Your task to perform on an android device: Empty the shopping cart on newegg. Add "acer nitro" to the cart on newegg, then select checkout. Image 0: 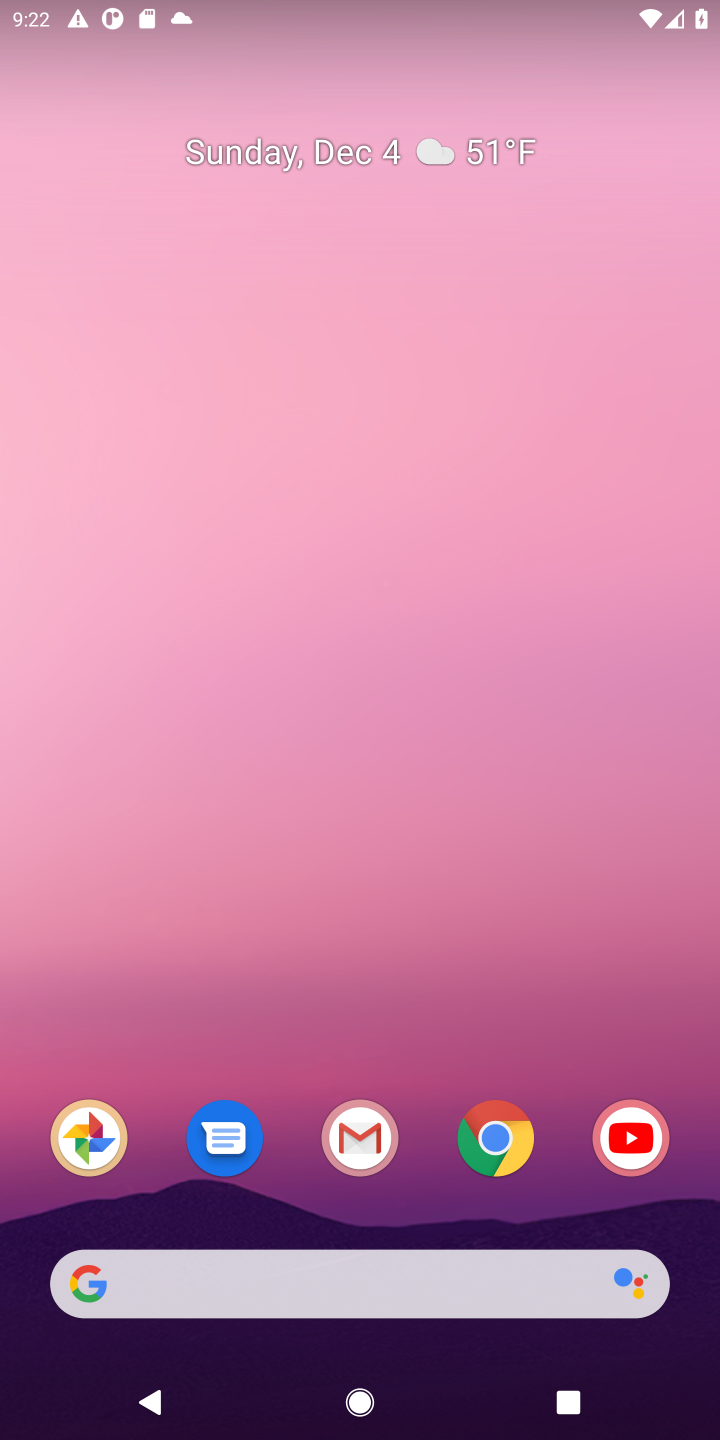
Step 0: click (491, 1136)
Your task to perform on an android device: Empty the shopping cart on newegg. Add "acer nitro" to the cart on newegg, then select checkout. Image 1: 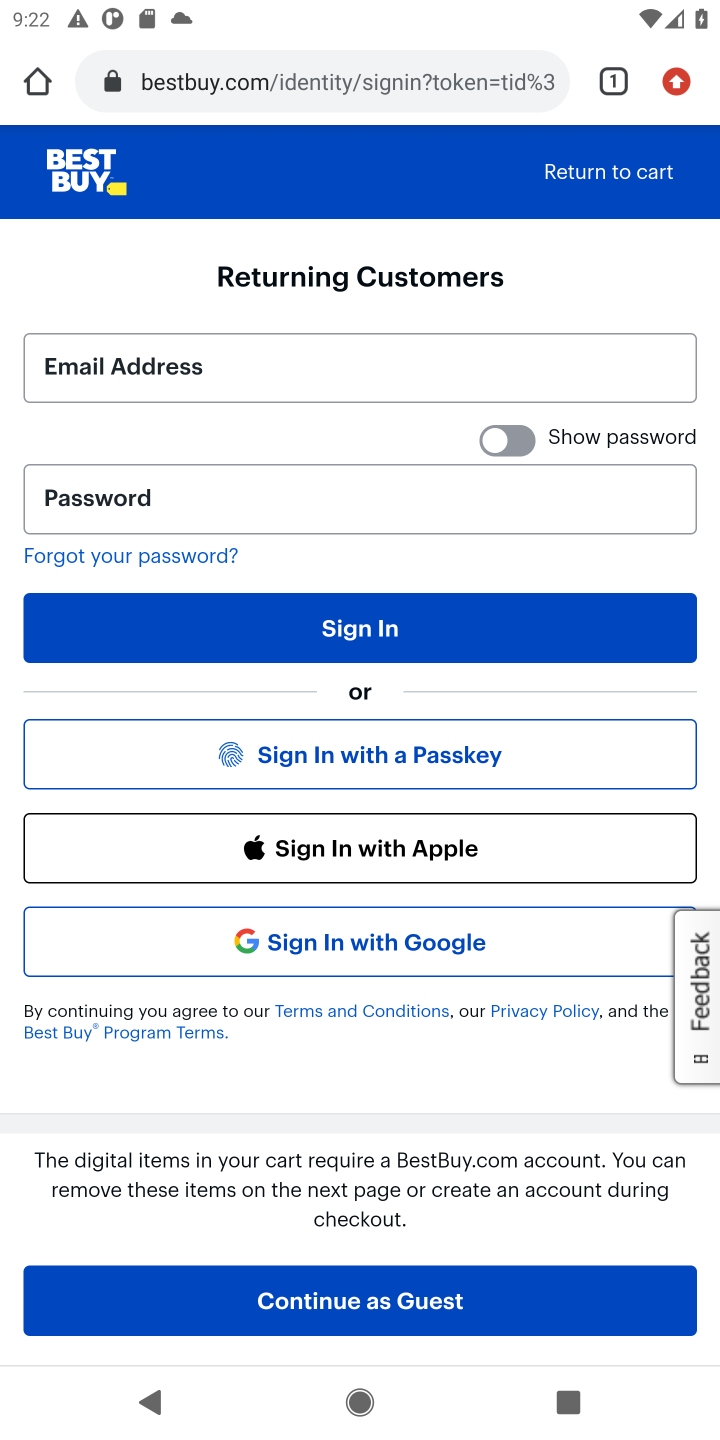
Step 1: click (340, 77)
Your task to perform on an android device: Empty the shopping cart on newegg. Add "acer nitro" to the cart on newegg, then select checkout. Image 2: 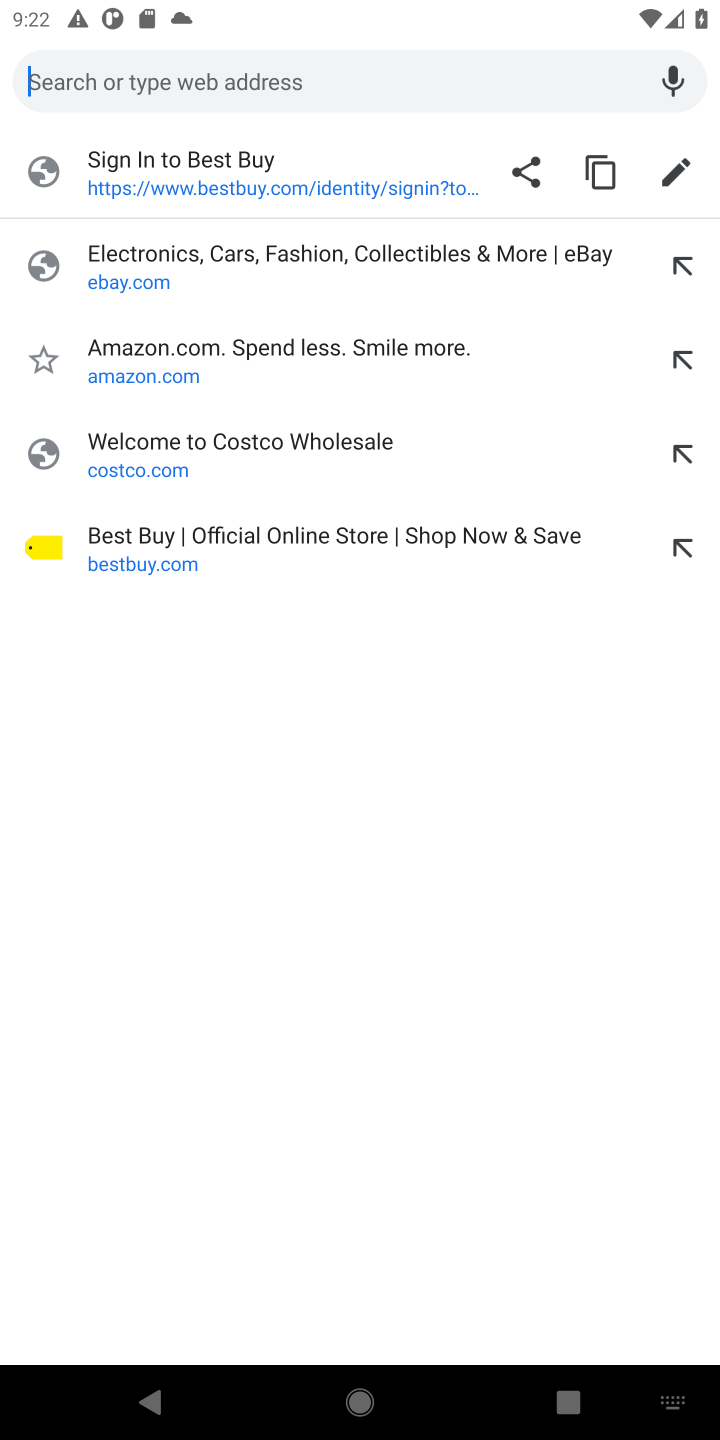
Step 2: press enter
Your task to perform on an android device: Empty the shopping cart on newegg. Add "acer nitro" to the cart on newegg, then select checkout. Image 3: 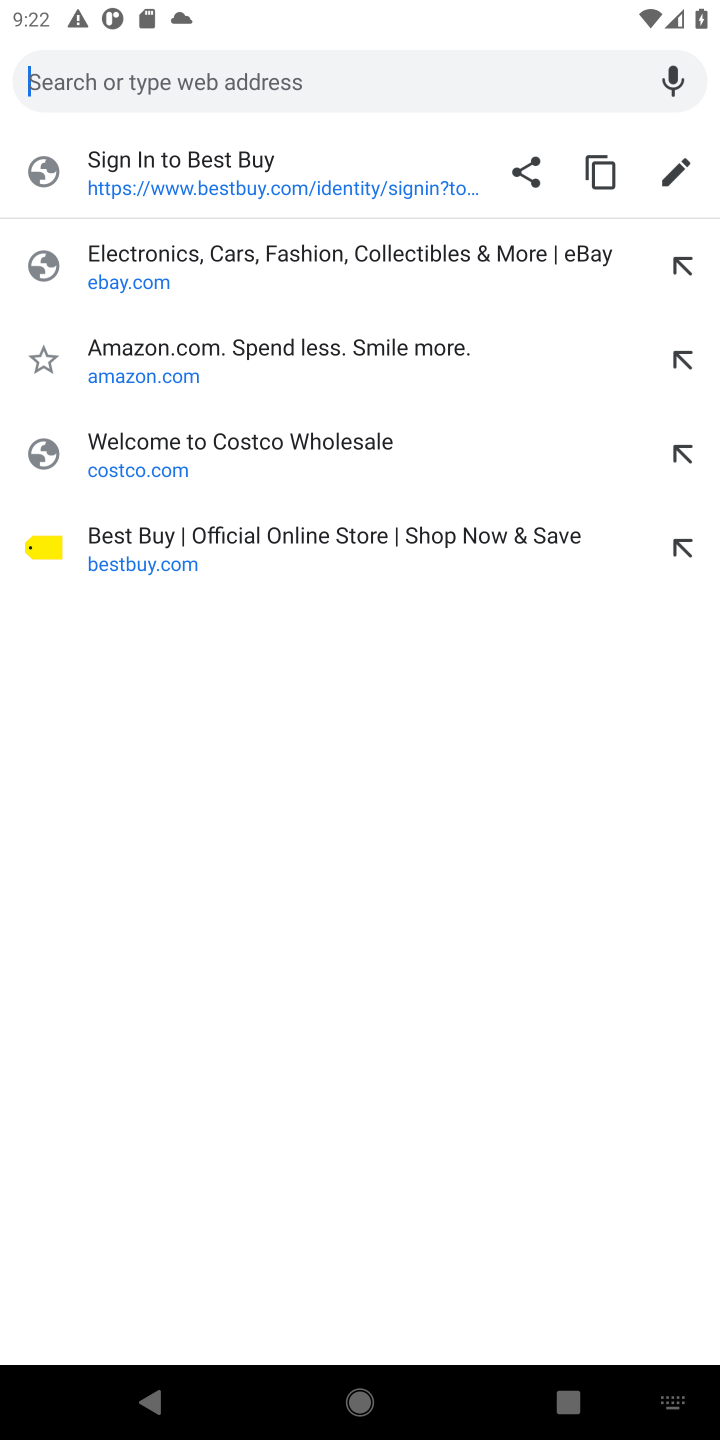
Step 3: type "newegg"
Your task to perform on an android device: Empty the shopping cart on newegg. Add "acer nitro" to the cart on newegg, then select checkout. Image 4: 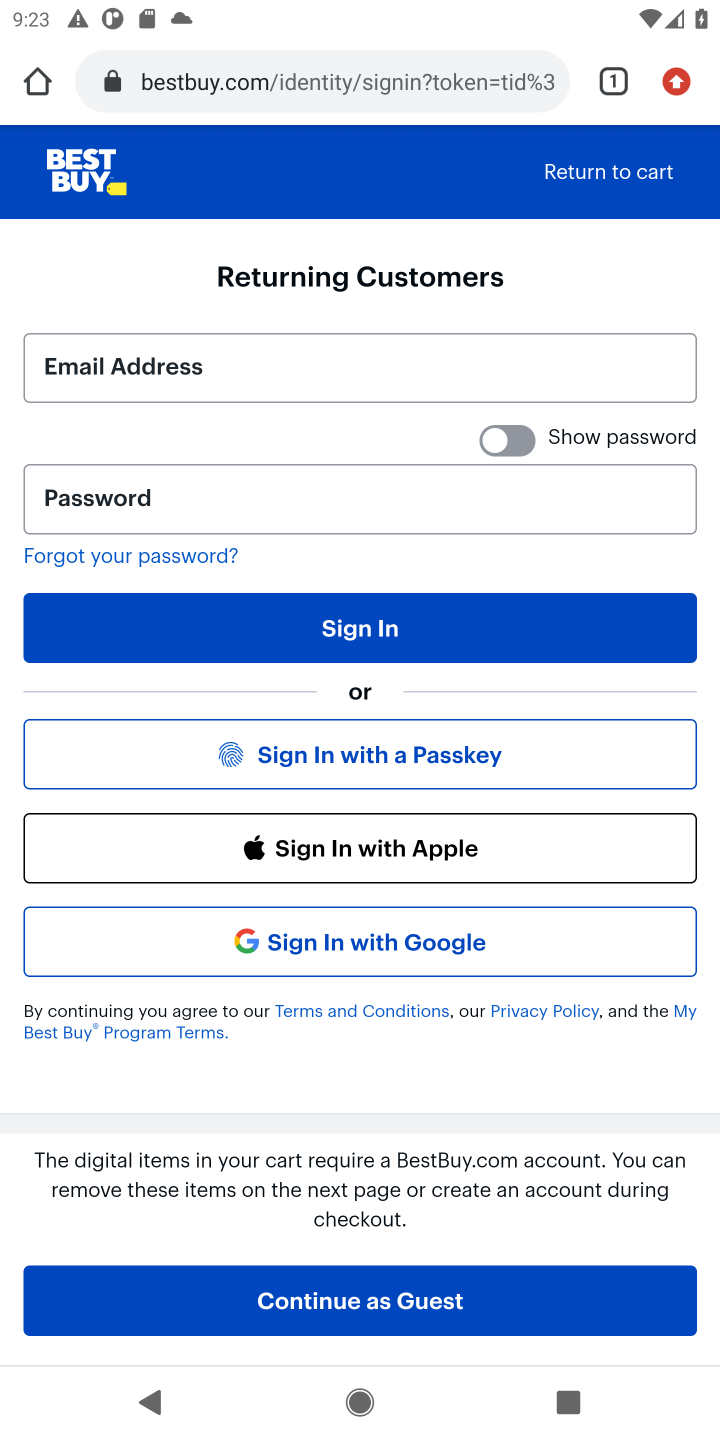
Step 4: click (413, 83)
Your task to perform on an android device: Empty the shopping cart on newegg. Add "acer nitro" to the cart on newegg, then select checkout. Image 5: 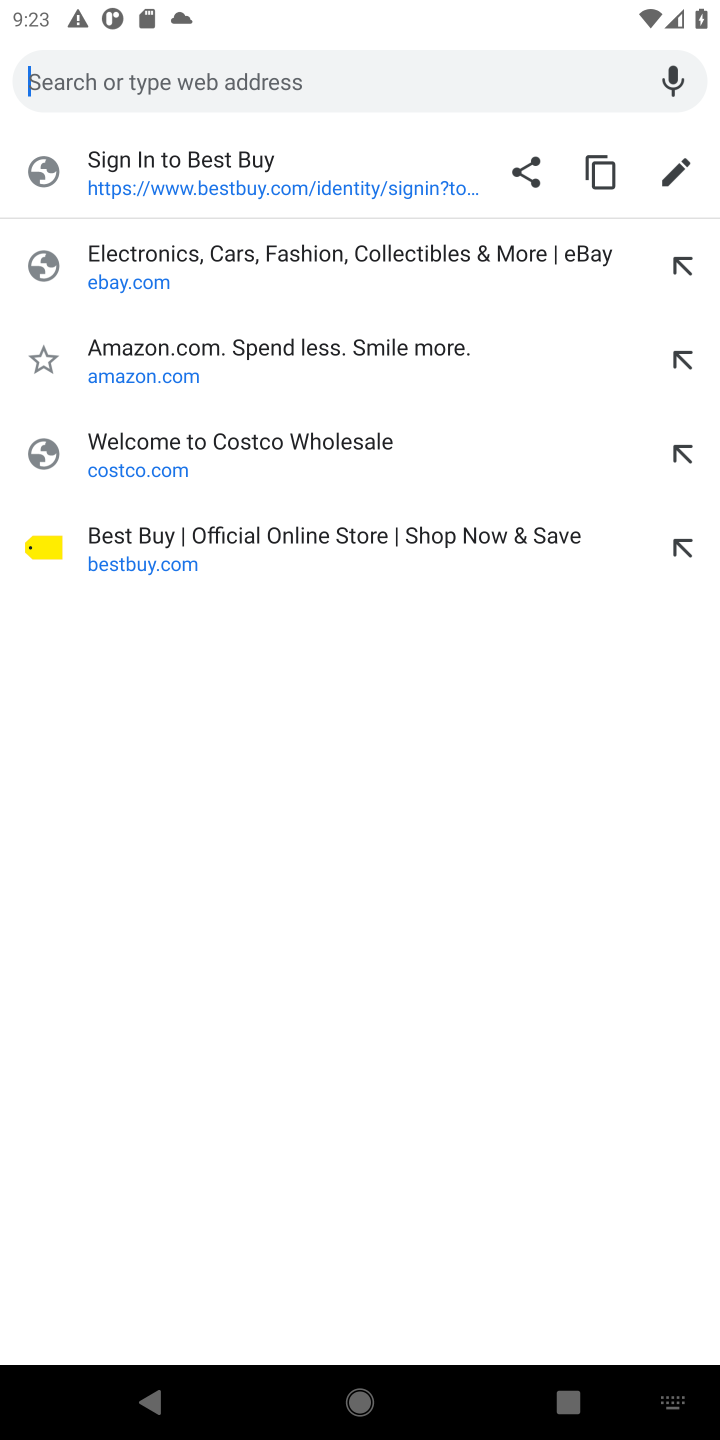
Step 5: type "newegg"
Your task to perform on an android device: Empty the shopping cart on newegg. Add "acer nitro" to the cart on newegg, then select checkout. Image 6: 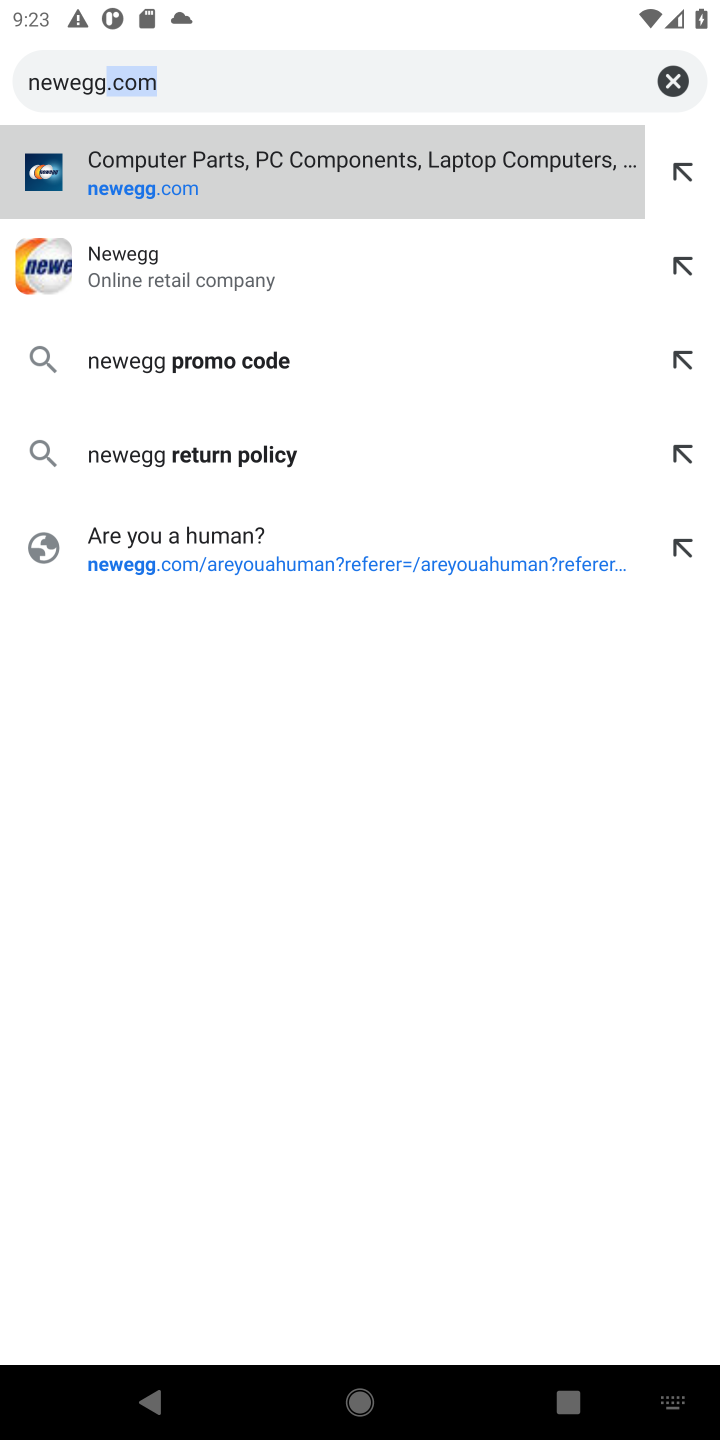
Step 6: press enter
Your task to perform on an android device: Empty the shopping cart on newegg. Add "acer nitro" to the cart on newegg, then select checkout. Image 7: 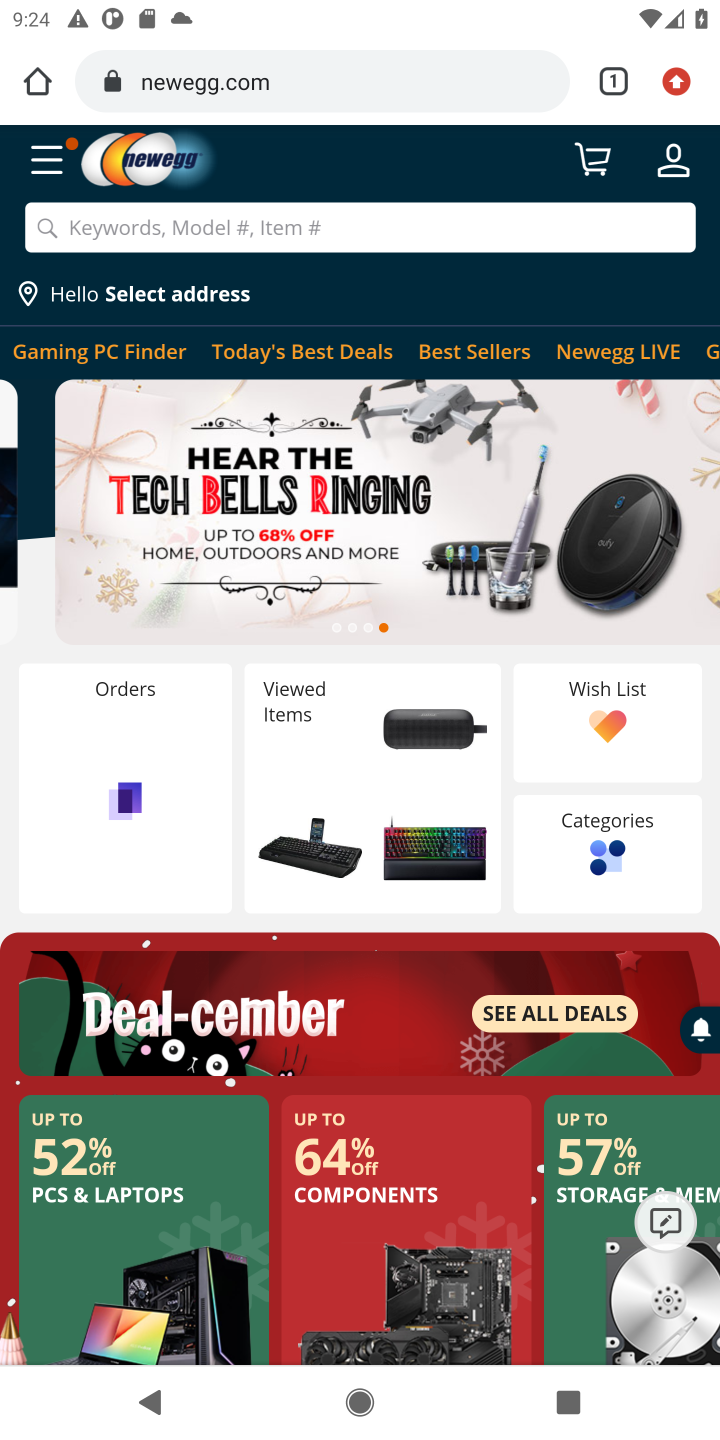
Step 7: click (399, 218)
Your task to perform on an android device: Empty the shopping cart on newegg. Add "acer nitro" to the cart on newegg, then select checkout. Image 8: 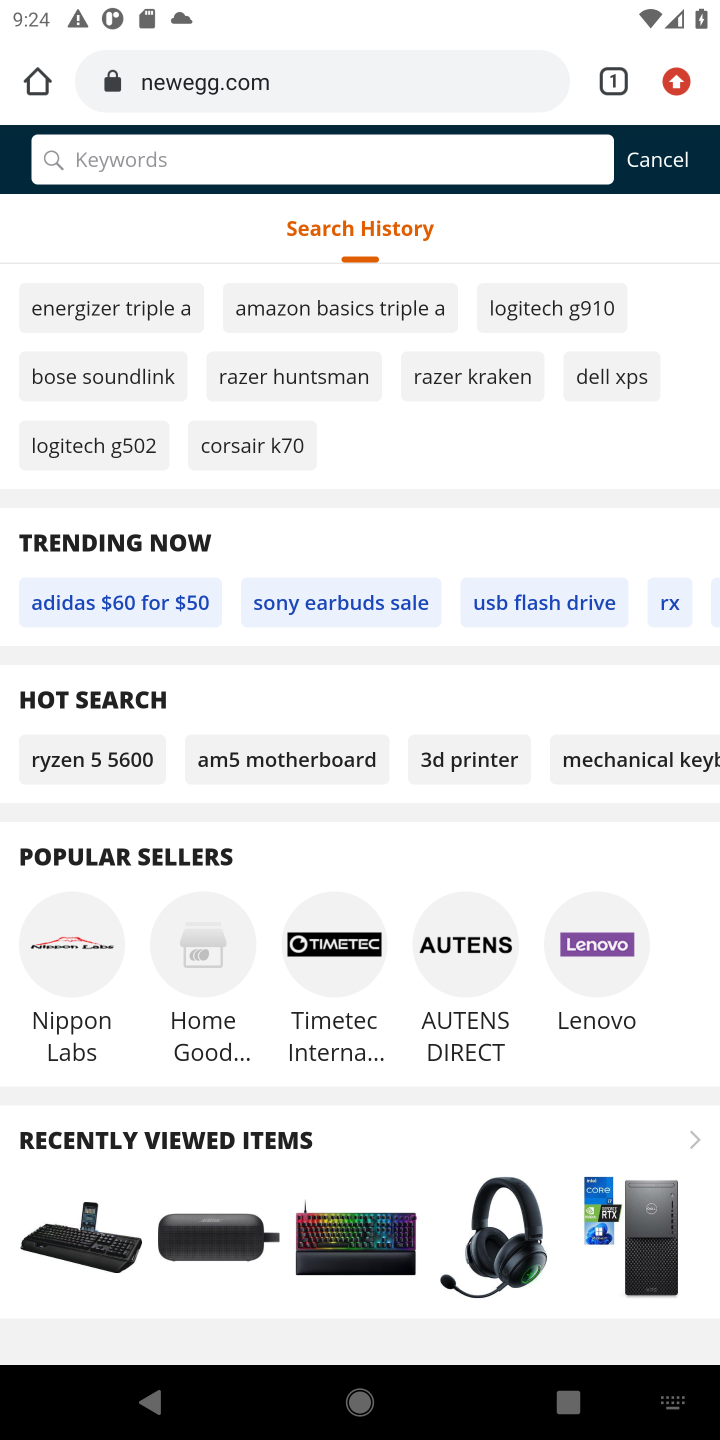
Step 8: type "acer nitro"
Your task to perform on an android device: Empty the shopping cart on newegg. Add "acer nitro" to the cart on newegg, then select checkout. Image 9: 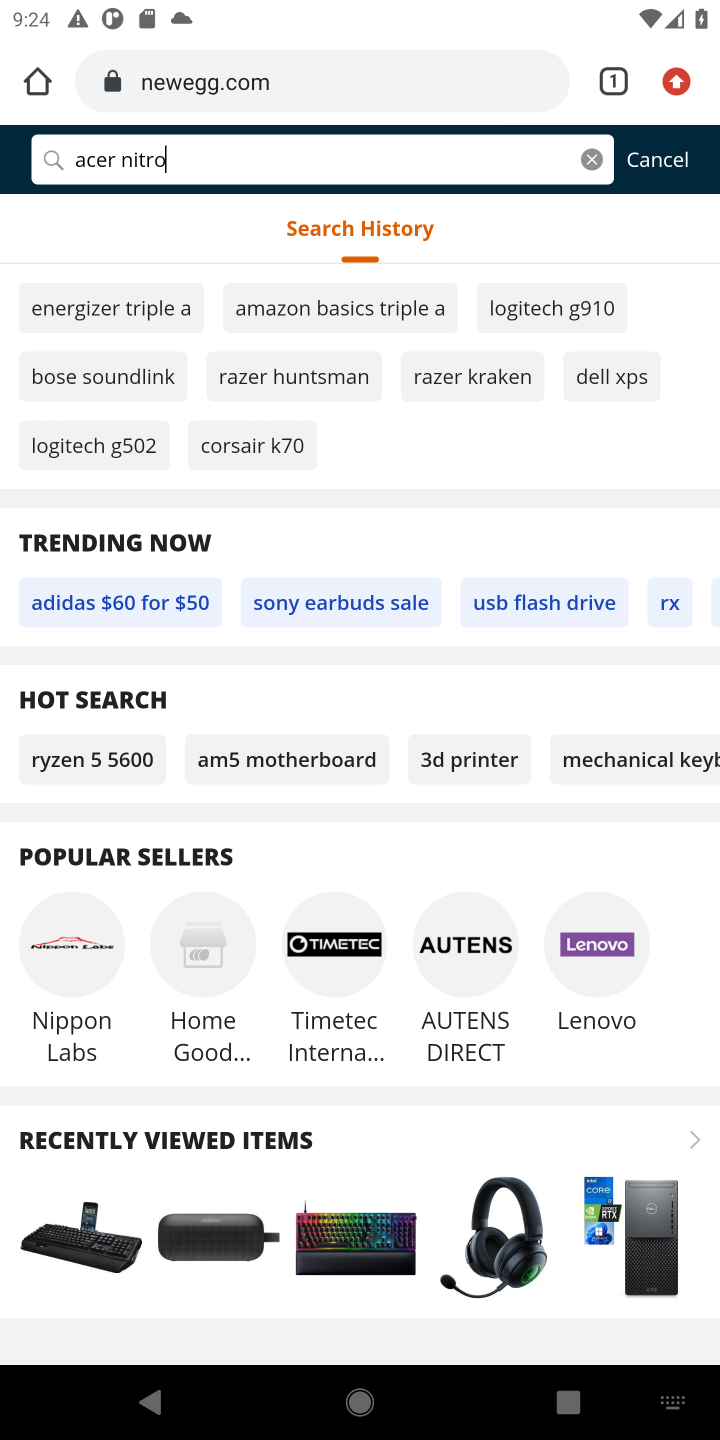
Step 9: press enter
Your task to perform on an android device: Empty the shopping cart on newegg. Add "acer nitro" to the cart on newegg, then select checkout. Image 10: 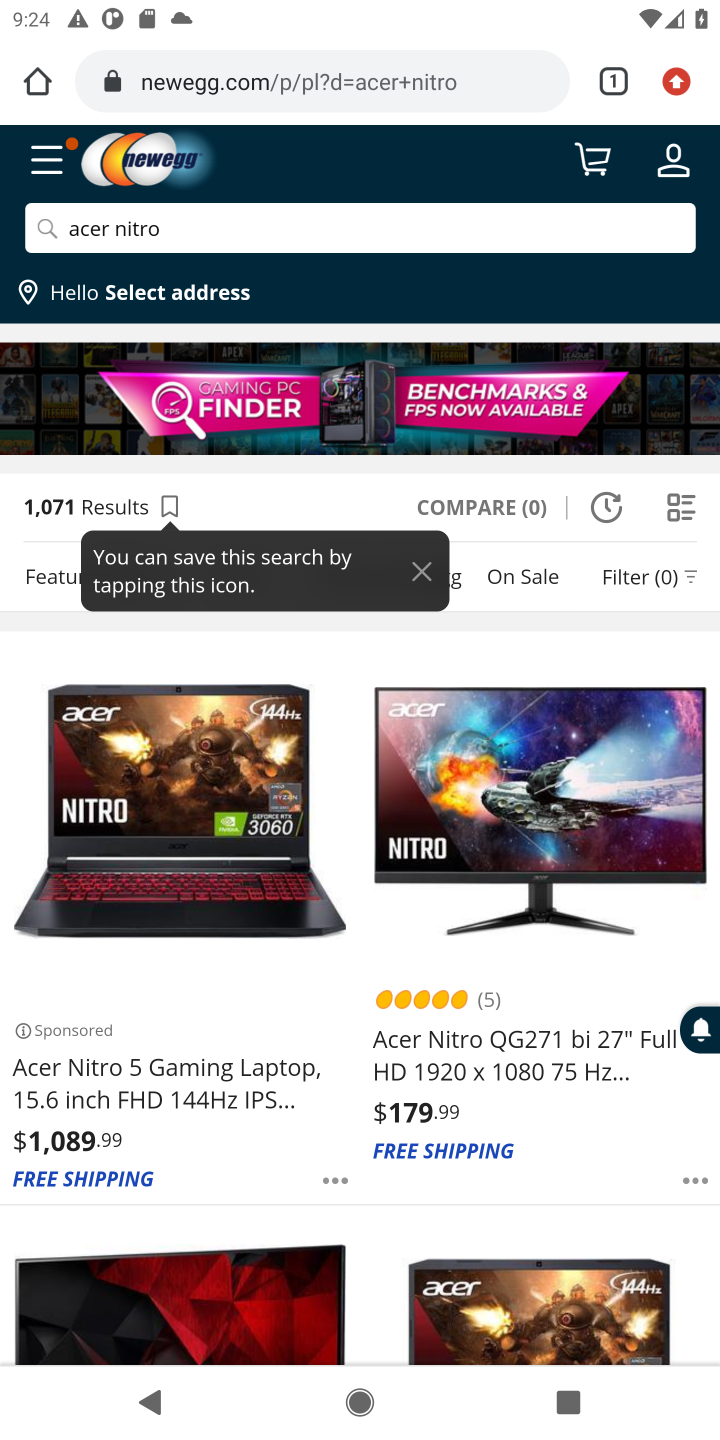
Step 10: click (180, 799)
Your task to perform on an android device: Empty the shopping cart on newegg. Add "acer nitro" to the cart on newegg, then select checkout. Image 11: 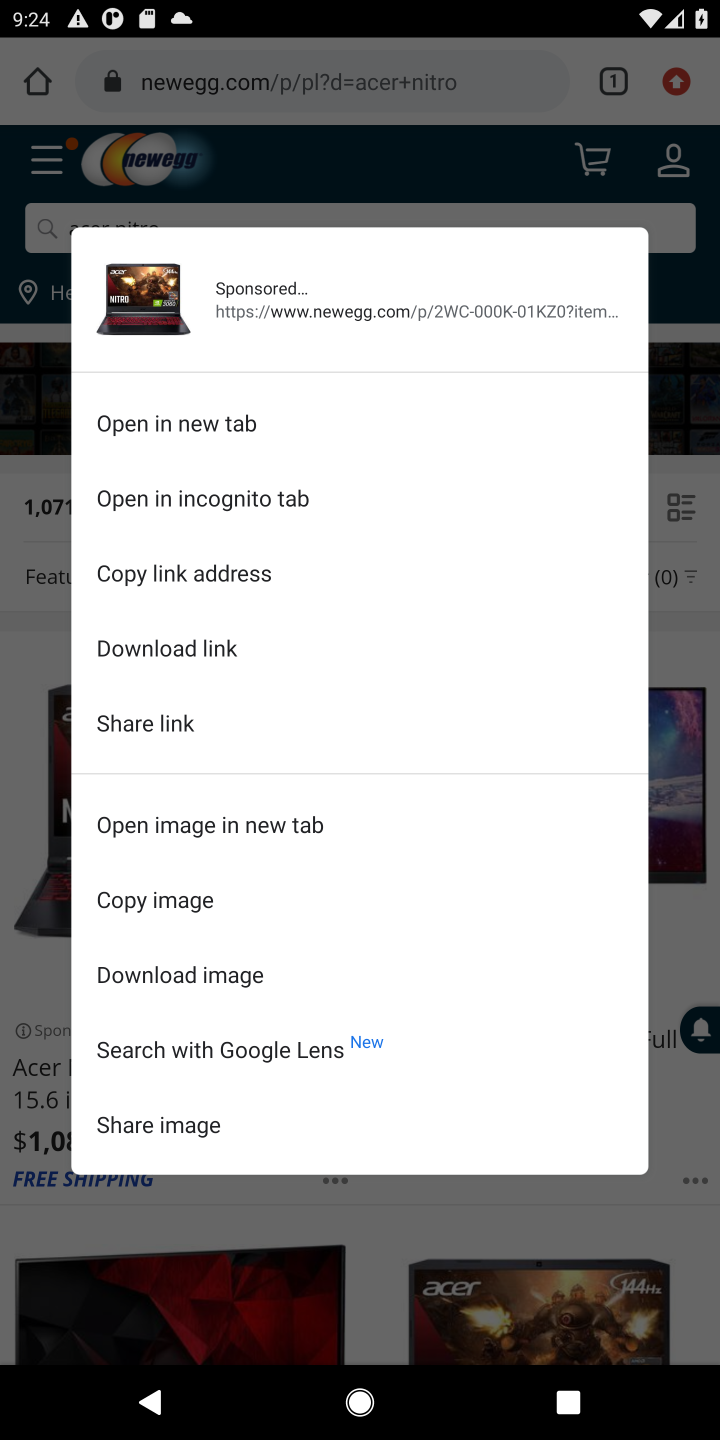
Step 11: click (27, 803)
Your task to perform on an android device: Empty the shopping cart on newegg. Add "acer nitro" to the cart on newegg, then select checkout. Image 12: 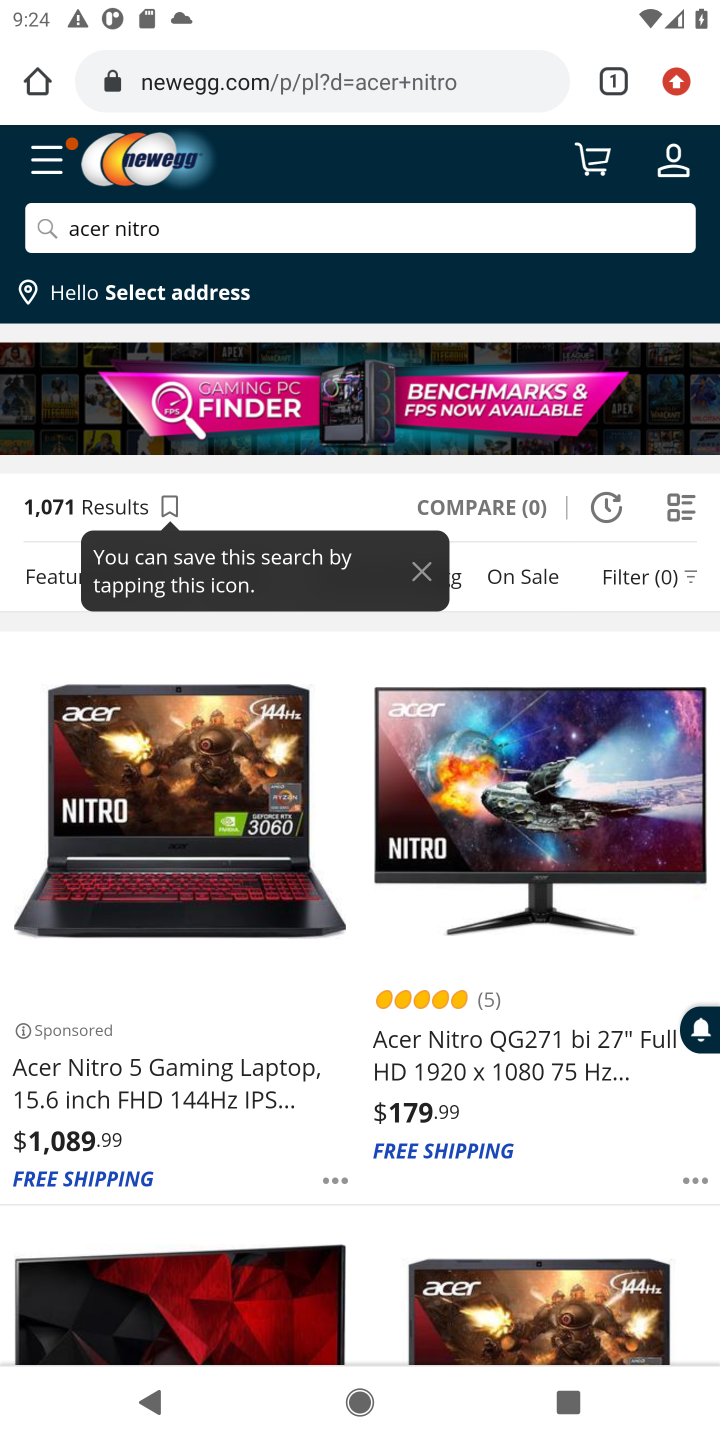
Step 12: click (88, 786)
Your task to perform on an android device: Empty the shopping cart on newegg. Add "acer nitro" to the cart on newegg, then select checkout. Image 13: 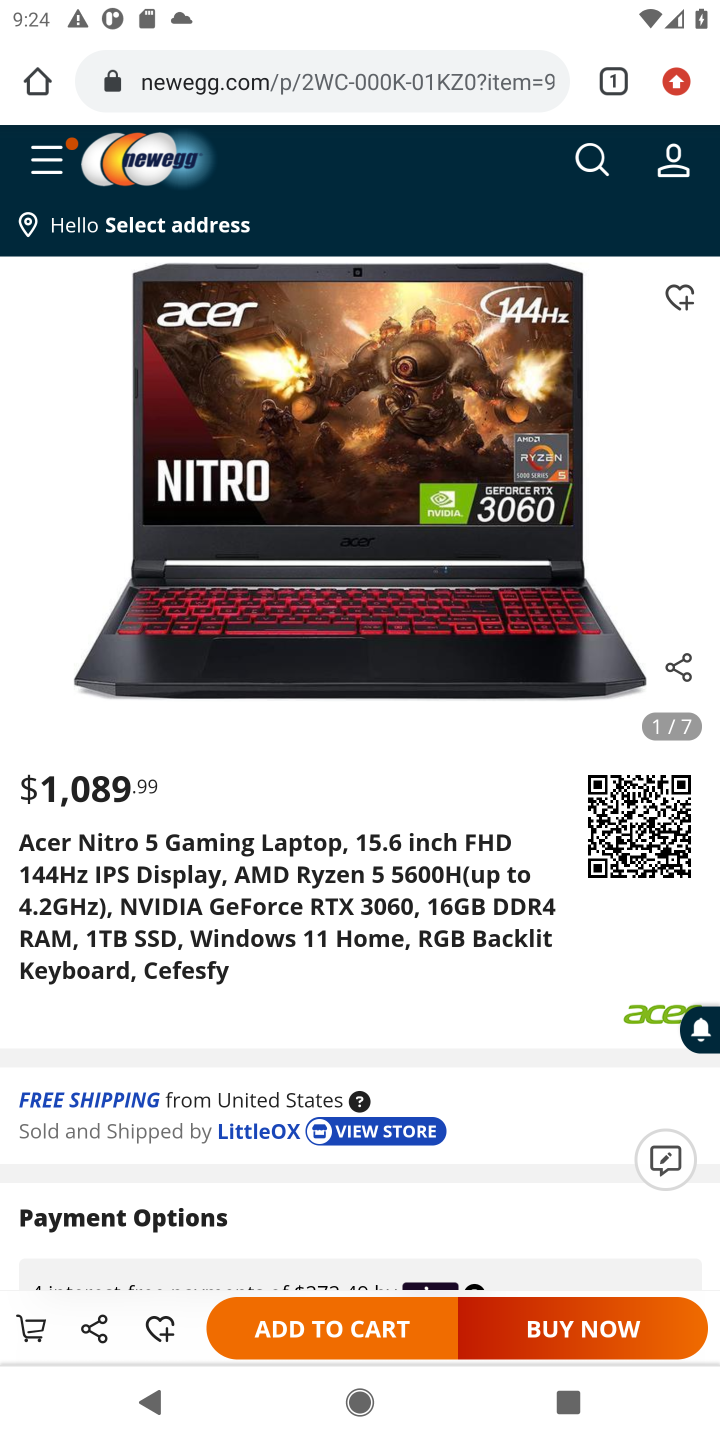
Step 13: drag from (541, 1015) to (517, 388)
Your task to perform on an android device: Empty the shopping cart on newegg. Add "acer nitro" to the cart on newegg, then select checkout. Image 14: 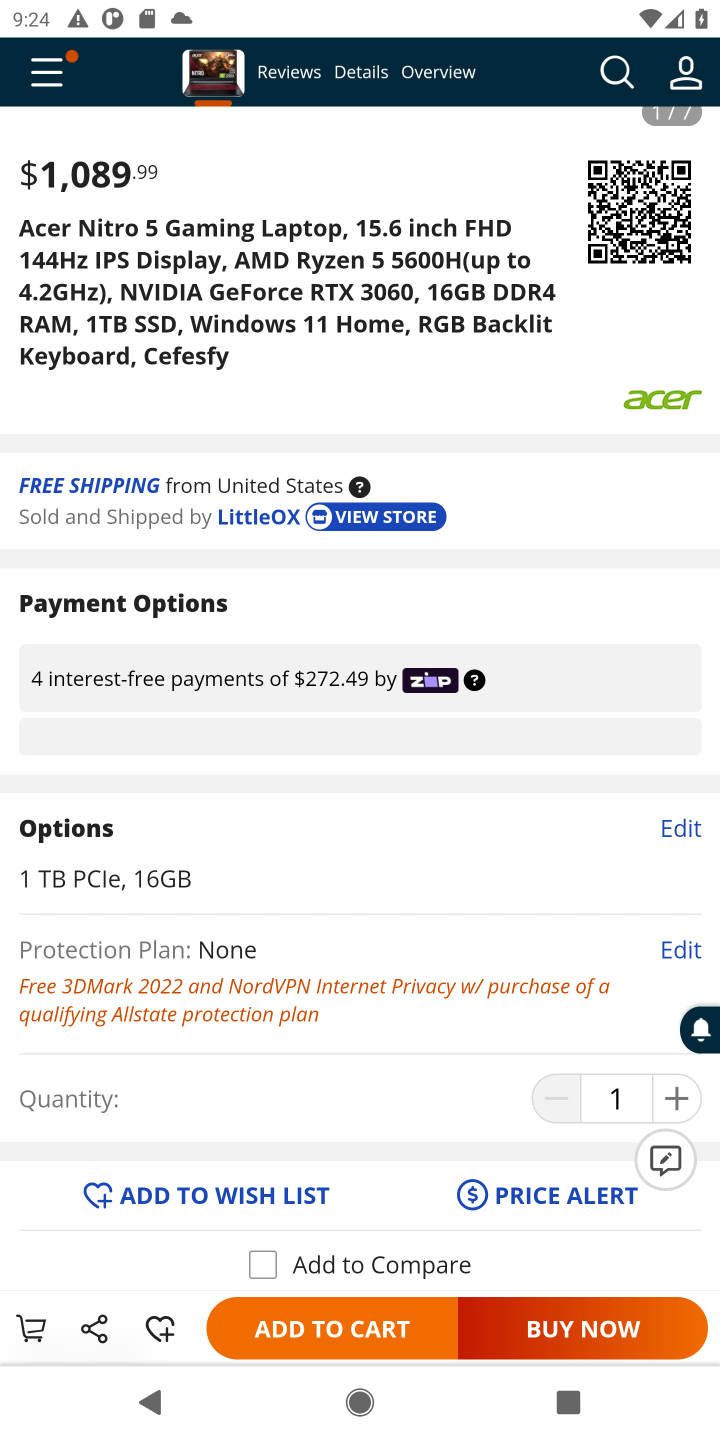
Step 14: click (320, 1323)
Your task to perform on an android device: Empty the shopping cart on newegg. Add "acer nitro" to the cart on newegg, then select checkout. Image 15: 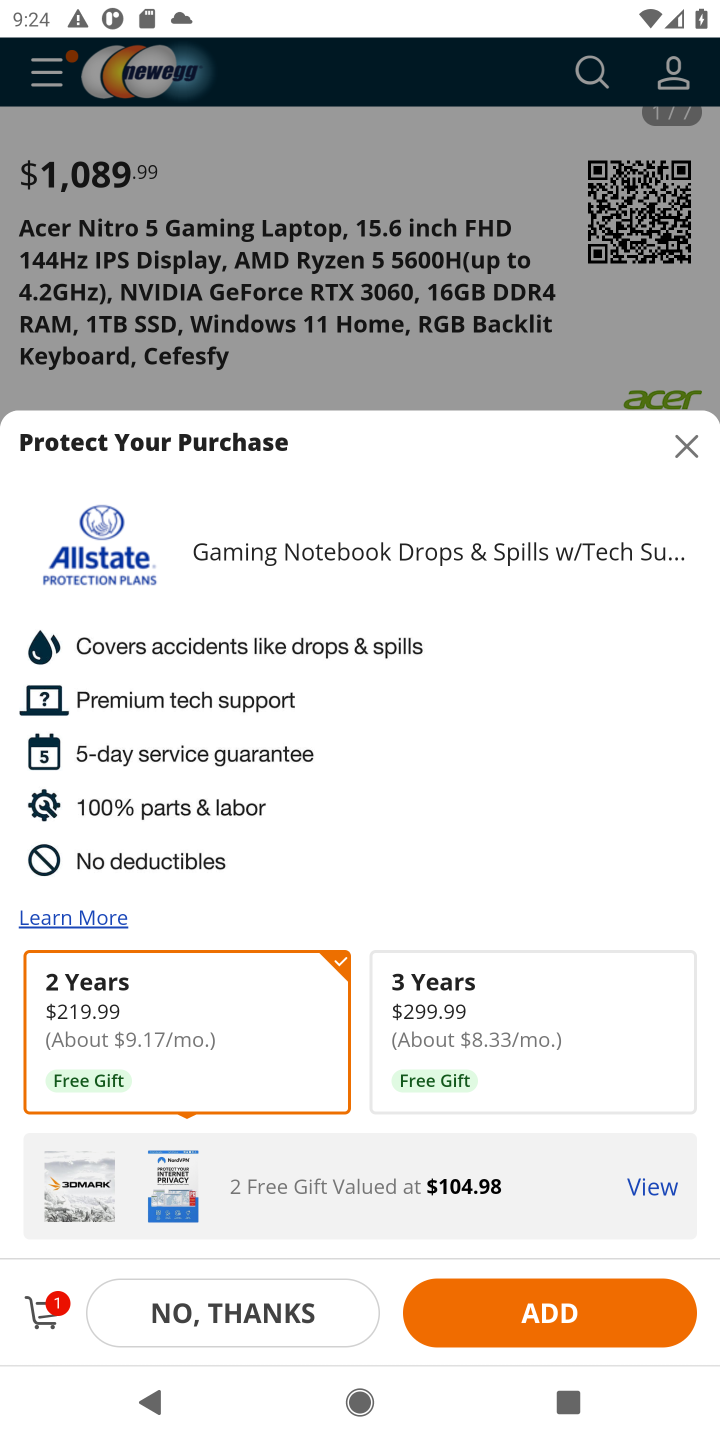
Step 15: click (45, 1312)
Your task to perform on an android device: Empty the shopping cart on newegg. Add "acer nitro" to the cart on newegg, then select checkout. Image 16: 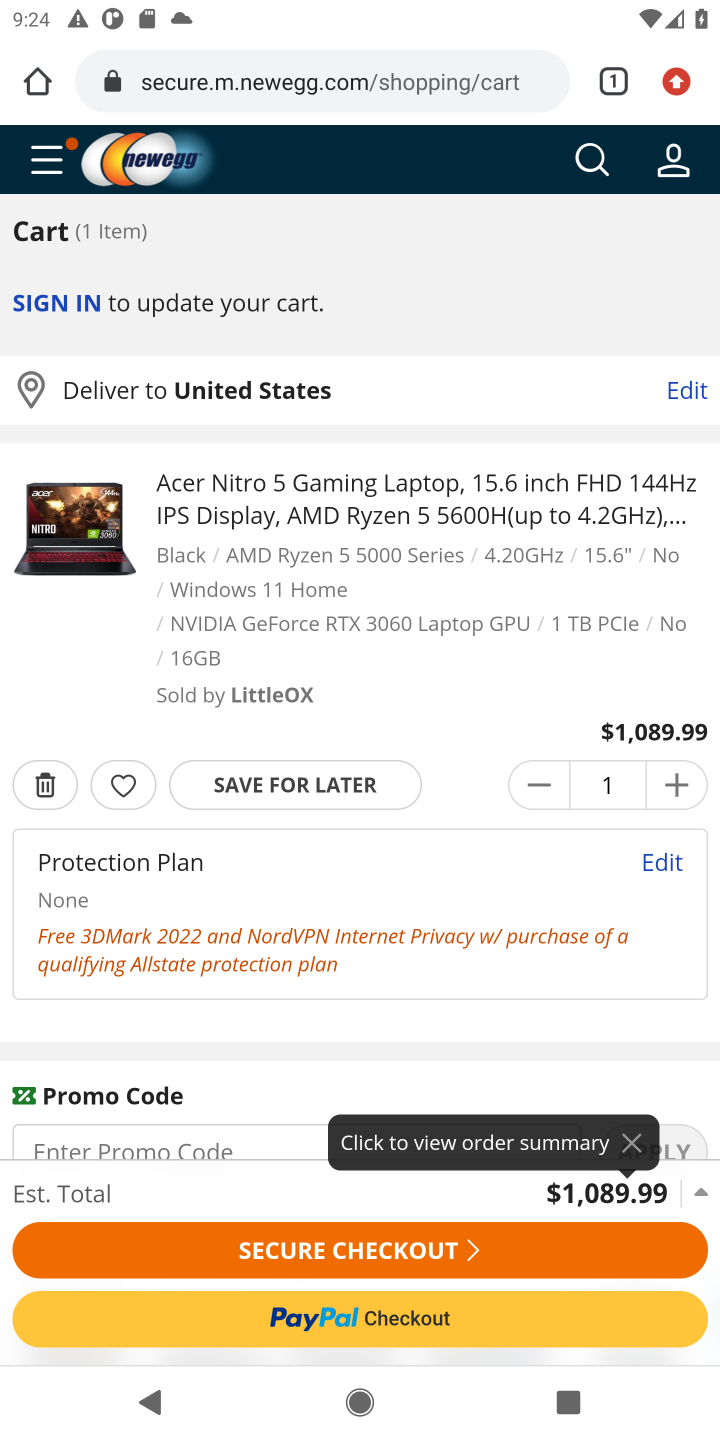
Step 16: click (380, 1247)
Your task to perform on an android device: Empty the shopping cart on newegg. Add "acer nitro" to the cart on newegg, then select checkout. Image 17: 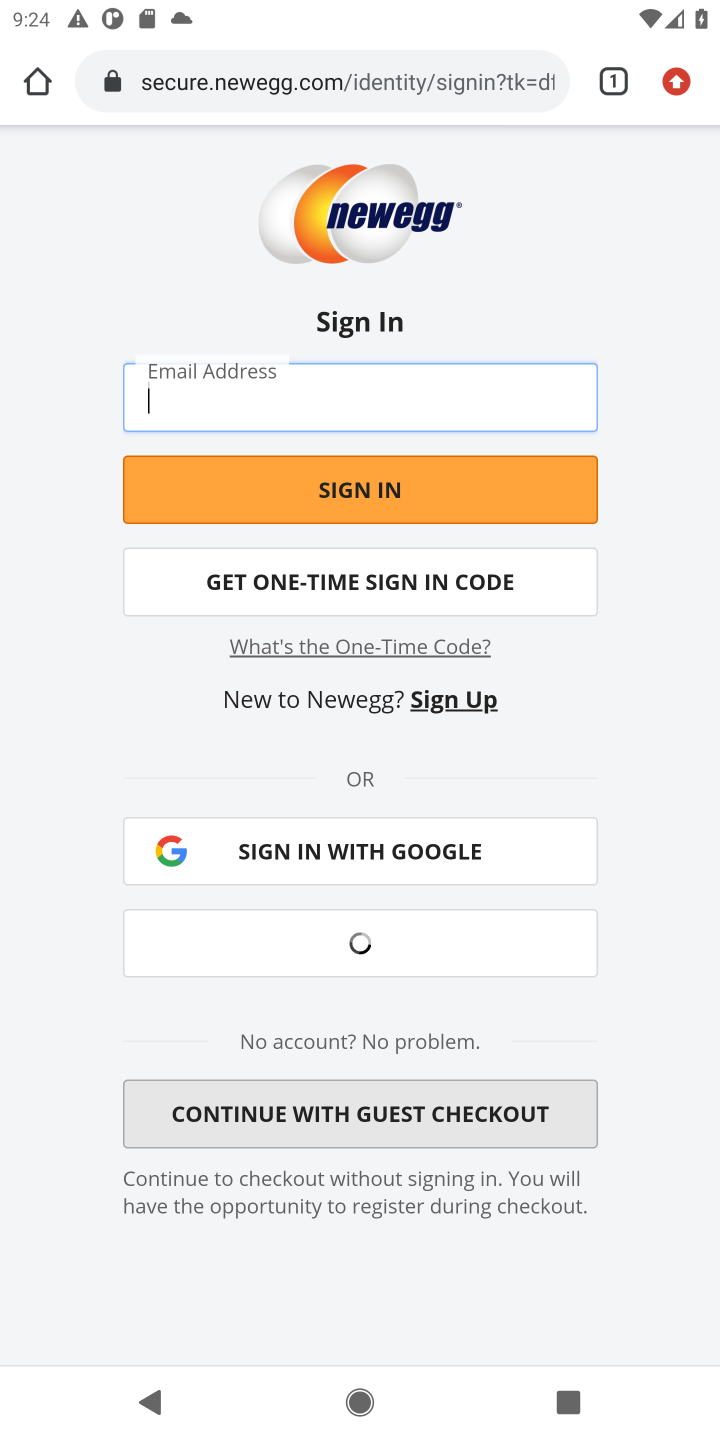
Step 17: task complete